Your task to perform on an android device: turn on sleep mode Image 0: 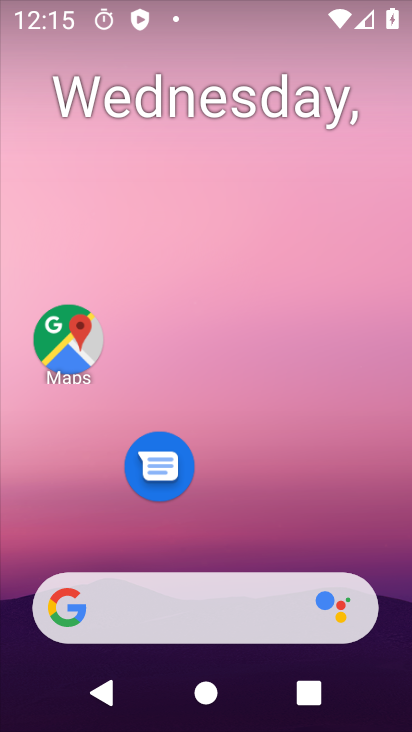
Step 0: drag from (282, 474) to (374, 100)
Your task to perform on an android device: turn on sleep mode Image 1: 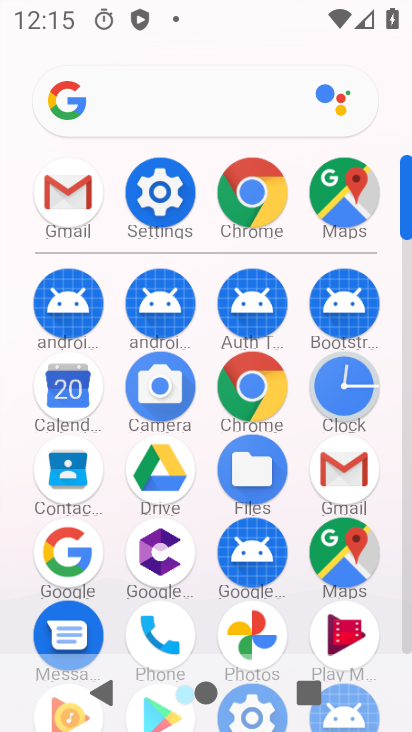
Step 1: click (174, 211)
Your task to perform on an android device: turn on sleep mode Image 2: 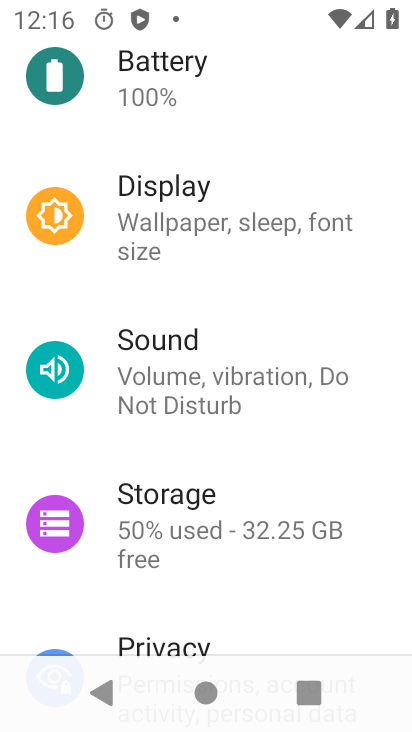
Step 2: click (253, 225)
Your task to perform on an android device: turn on sleep mode Image 3: 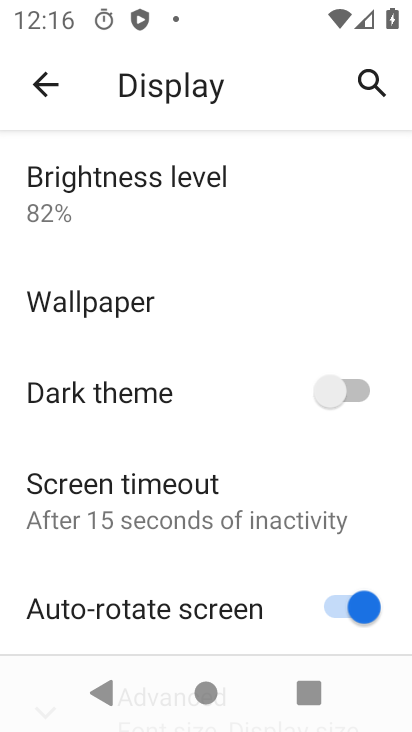
Step 3: click (182, 501)
Your task to perform on an android device: turn on sleep mode Image 4: 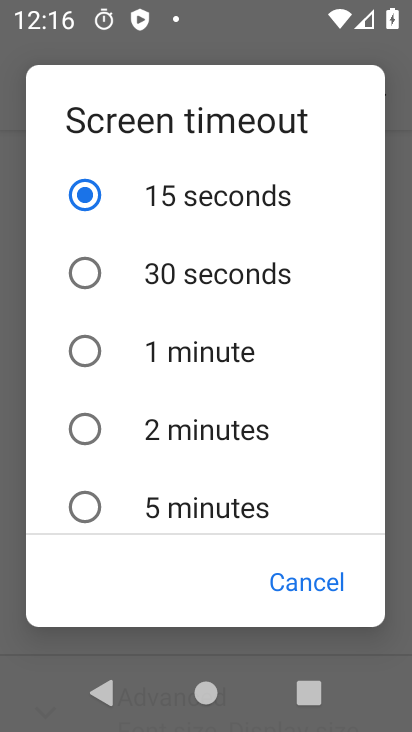
Step 4: click (190, 347)
Your task to perform on an android device: turn on sleep mode Image 5: 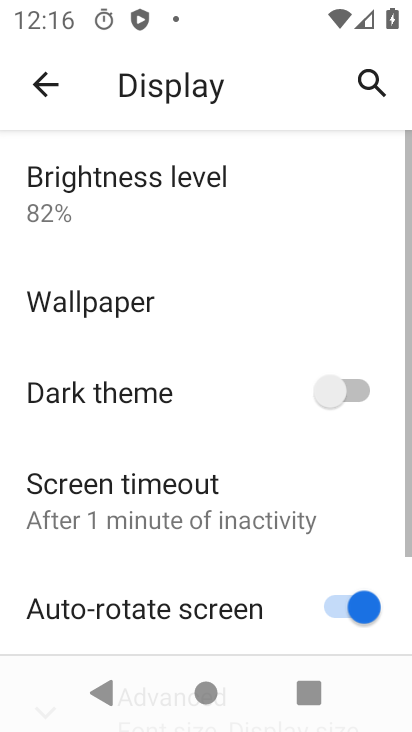
Step 5: task complete